Your task to perform on an android device: turn off priority inbox in the gmail app Image 0: 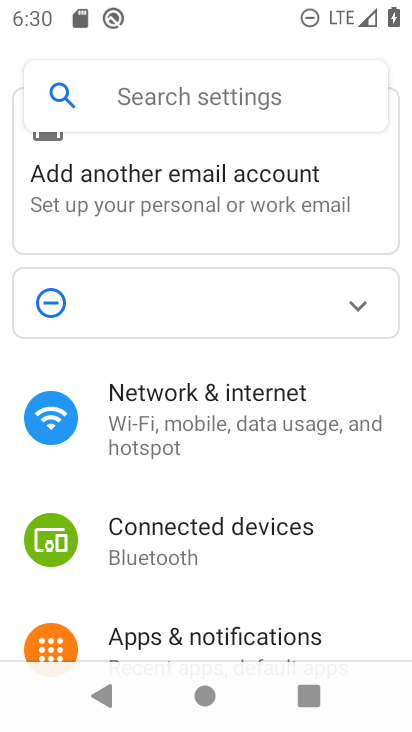
Step 0: press home button
Your task to perform on an android device: turn off priority inbox in the gmail app Image 1: 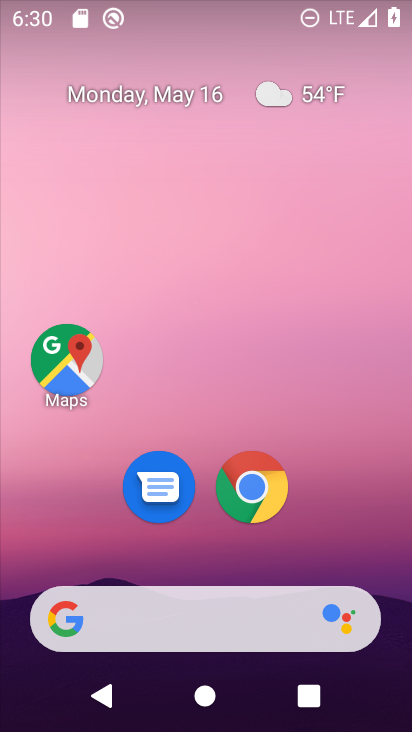
Step 1: drag from (210, 544) to (256, 168)
Your task to perform on an android device: turn off priority inbox in the gmail app Image 2: 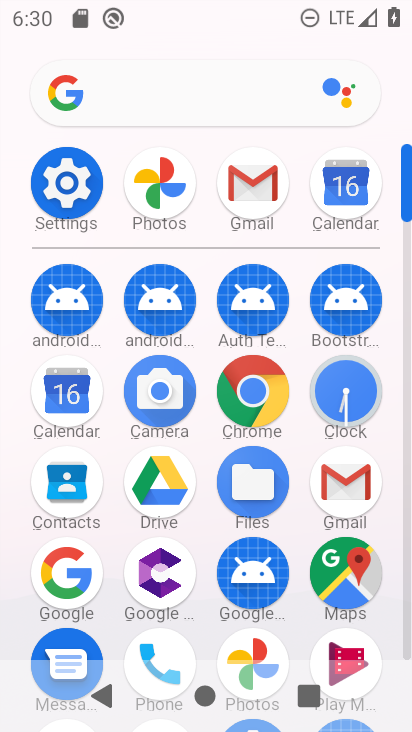
Step 2: click (244, 194)
Your task to perform on an android device: turn off priority inbox in the gmail app Image 3: 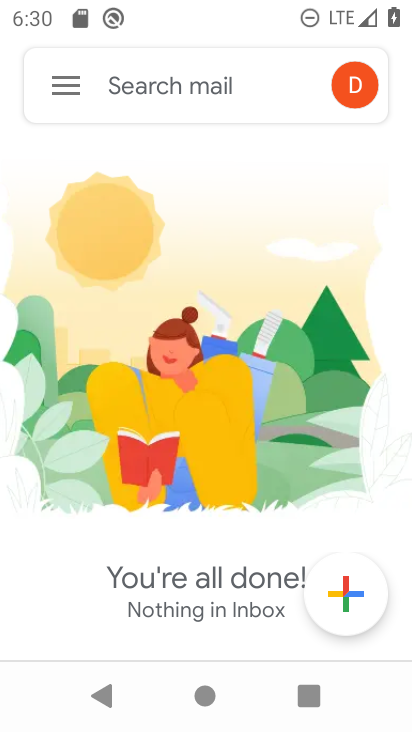
Step 3: click (57, 89)
Your task to perform on an android device: turn off priority inbox in the gmail app Image 4: 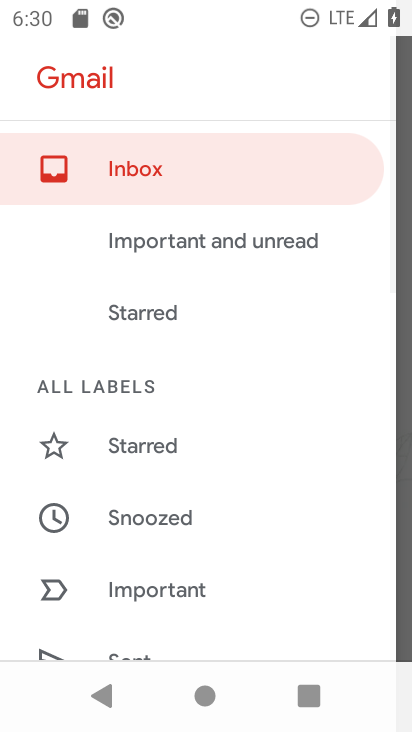
Step 4: drag from (138, 636) to (191, 218)
Your task to perform on an android device: turn off priority inbox in the gmail app Image 5: 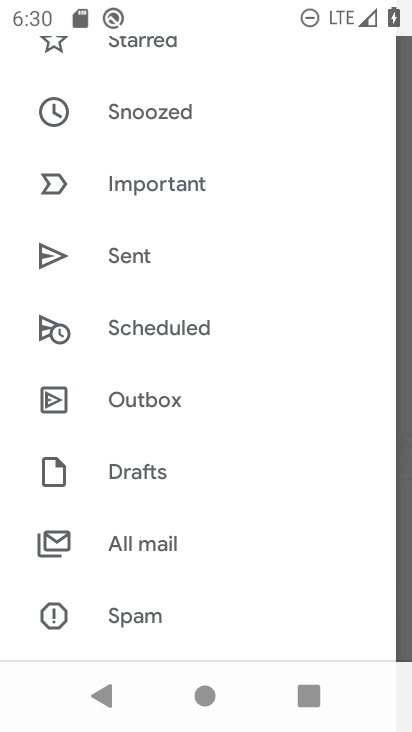
Step 5: drag from (156, 610) to (201, 286)
Your task to perform on an android device: turn off priority inbox in the gmail app Image 6: 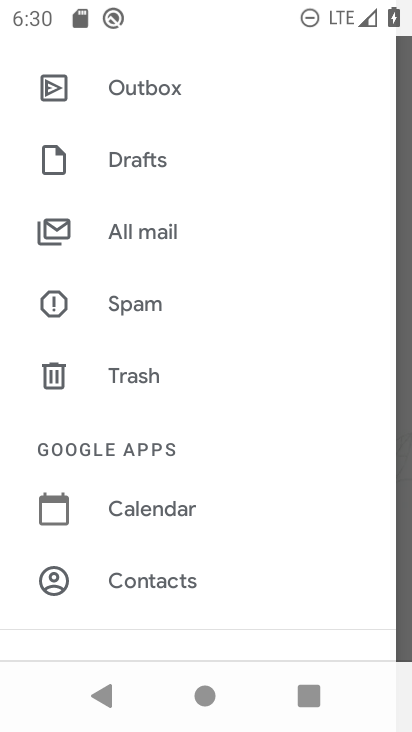
Step 6: drag from (143, 601) to (196, 258)
Your task to perform on an android device: turn off priority inbox in the gmail app Image 7: 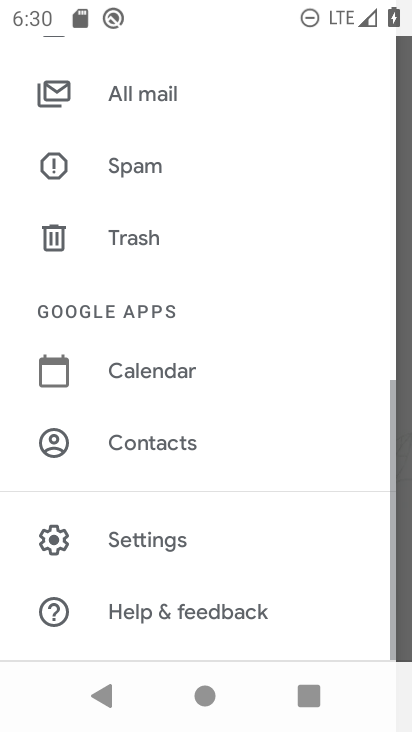
Step 7: click (132, 540)
Your task to perform on an android device: turn off priority inbox in the gmail app Image 8: 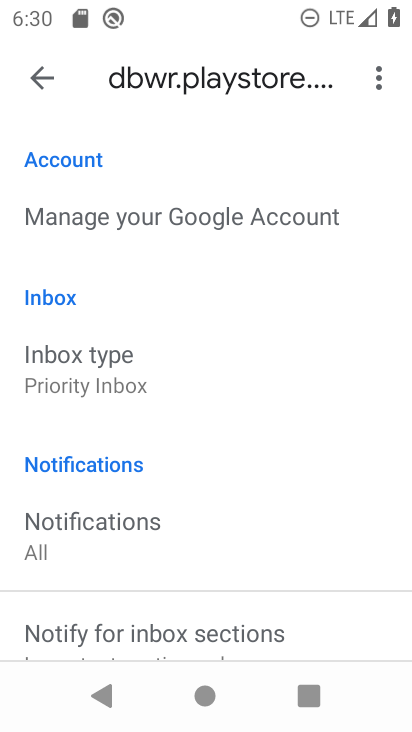
Step 8: click (85, 394)
Your task to perform on an android device: turn off priority inbox in the gmail app Image 9: 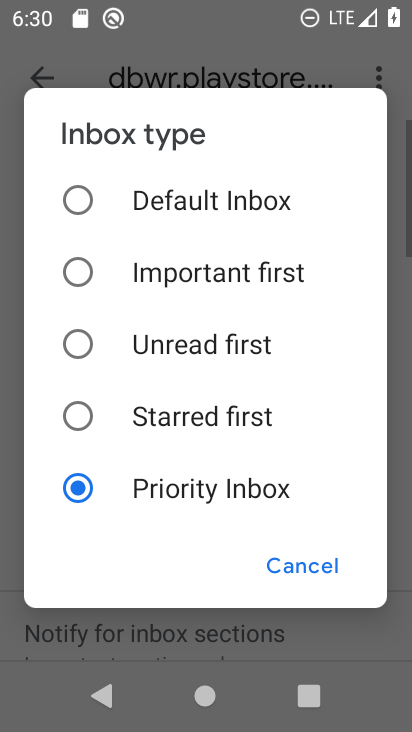
Step 9: click (130, 186)
Your task to perform on an android device: turn off priority inbox in the gmail app Image 10: 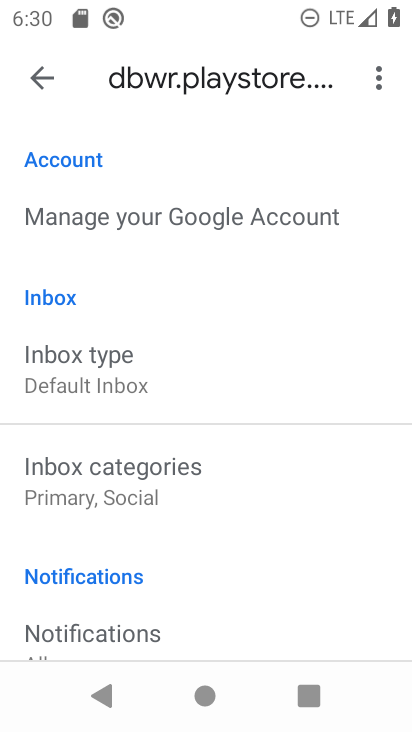
Step 10: task complete